Your task to perform on an android device: show emergency info Image 0: 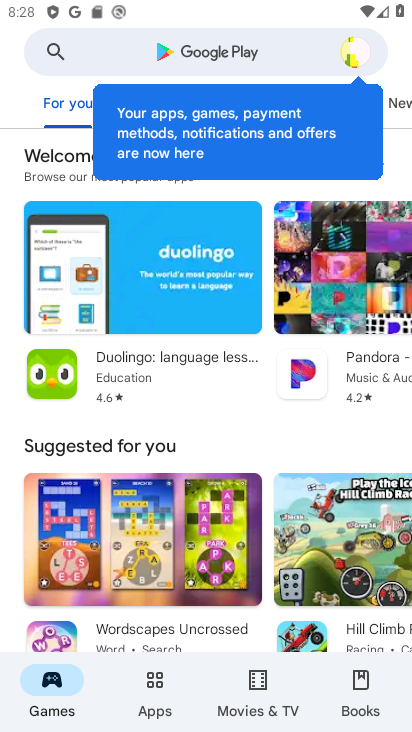
Step 0: press home button
Your task to perform on an android device: show emergency info Image 1: 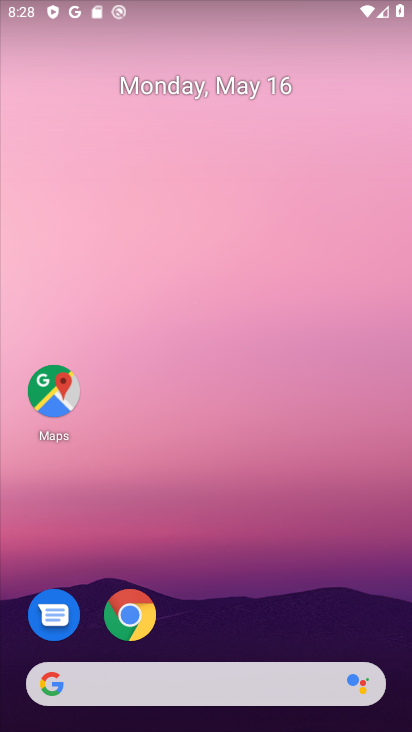
Step 1: drag from (91, 563) to (326, 256)
Your task to perform on an android device: show emergency info Image 2: 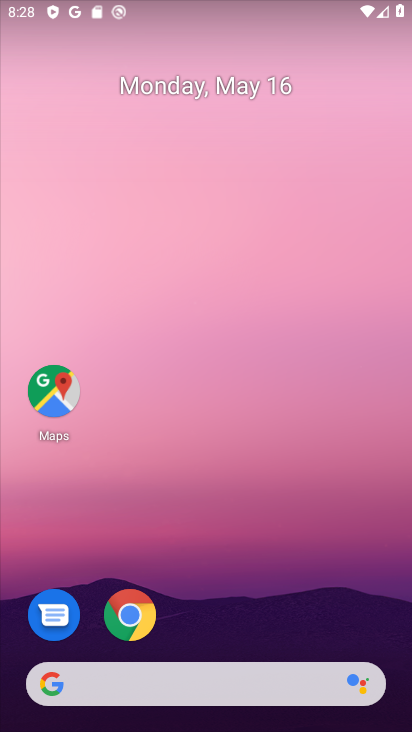
Step 2: drag from (85, 477) to (276, 147)
Your task to perform on an android device: show emergency info Image 3: 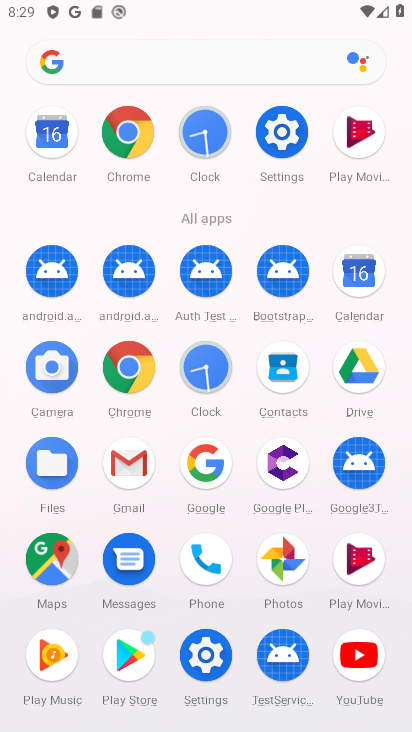
Step 3: click (213, 629)
Your task to perform on an android device: show emergency info Image 4: 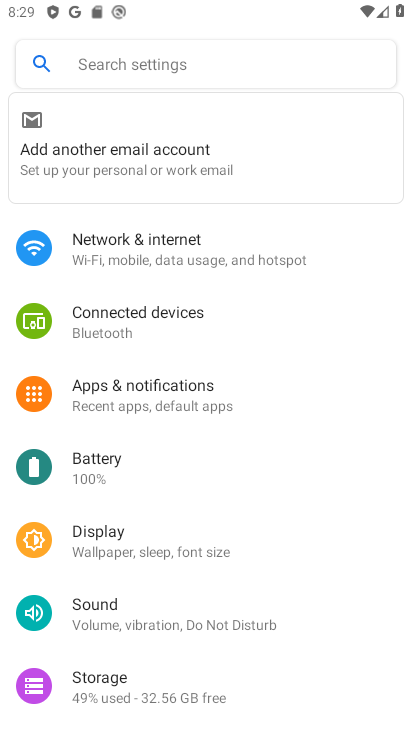
Step 4: drag from (21, 622) to (203, 208)
Your task to perform on an android device: show emergency info Image 5: 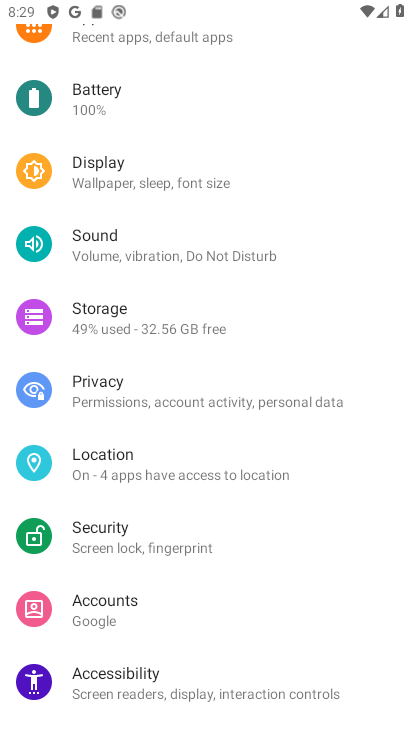
Step 5: drag from (54, 711) to (275, 290)
Your task to perform on an android device: show emergency info Image 6: 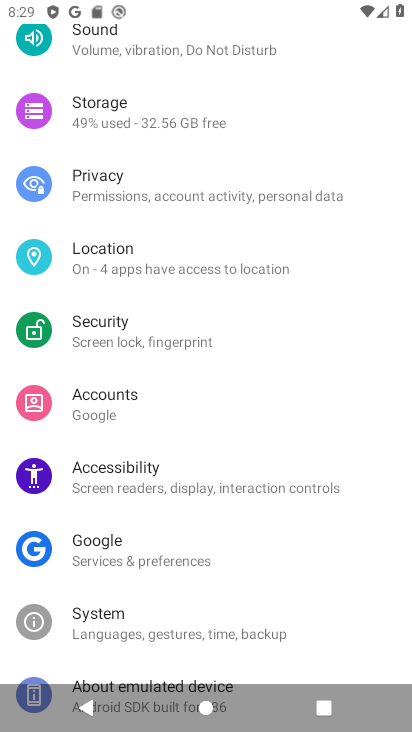
Step 6: click (105, 677)
Your task to perform on an android device: show emergency info Image 7: 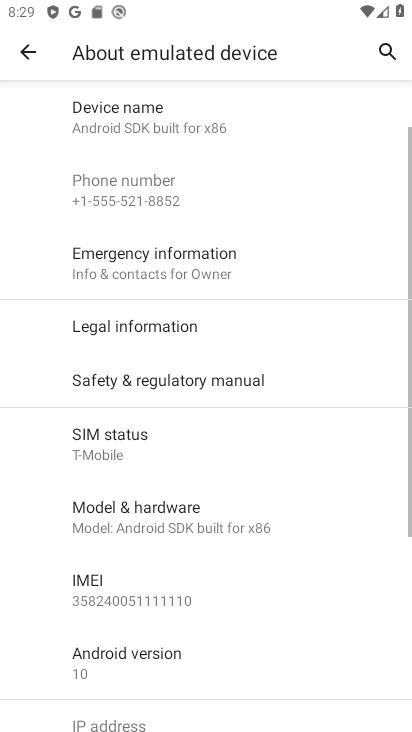
Step 7: click (238, 259)
Your task to perform on an android device: show emergency info Image 8: 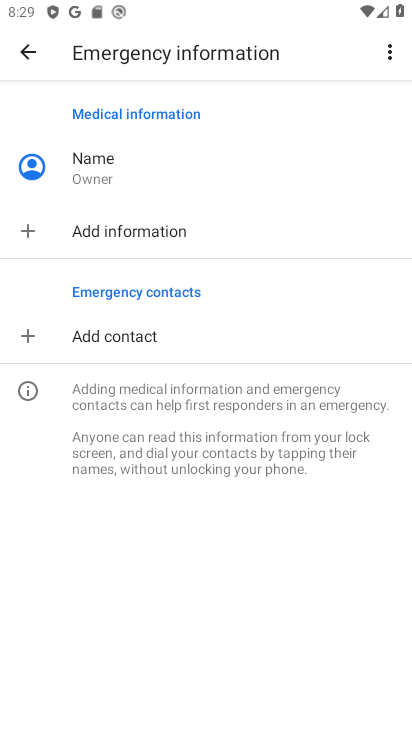
Step 8: task complete